Your task to perform on an android device: What is the recent news? Image 0: 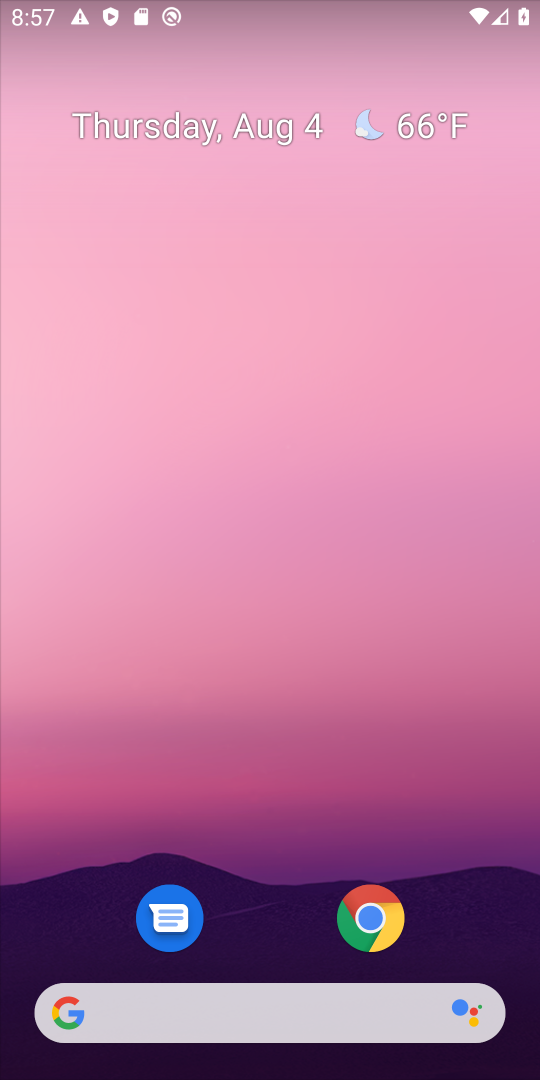
Step 0: press home button
Your task to perform on an android device: What is the recent news? Image 1: 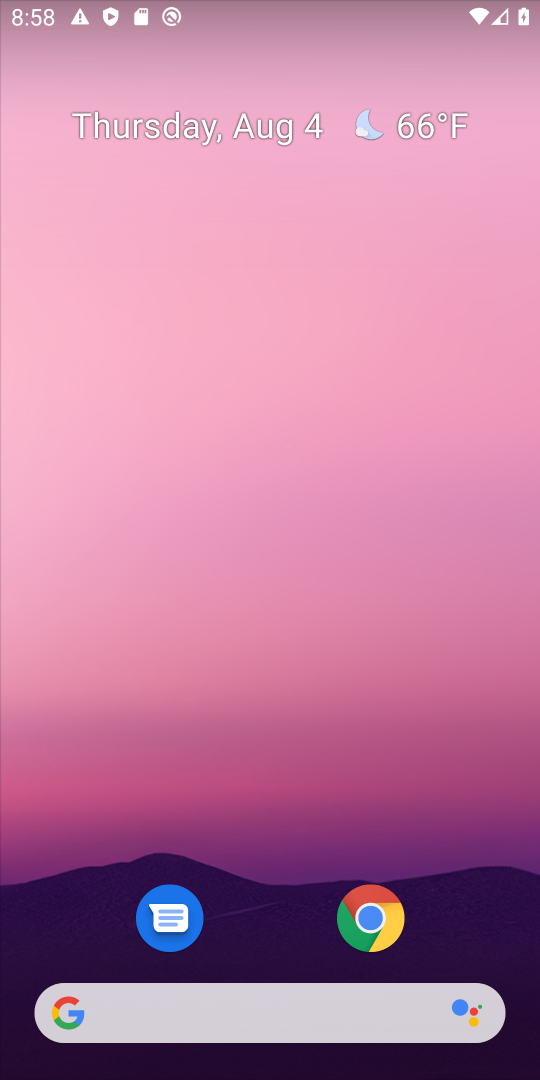
Step 1: task complete